Your task to perform on an android device: turn on sleep mode Image 0: 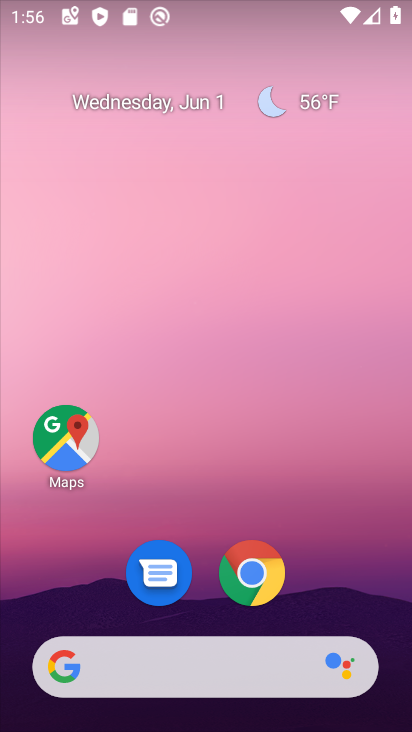
Step 0: drag from (324, 517) to (241, 1)
Your task to perform on an android device: turn on sleep mode Image 1: 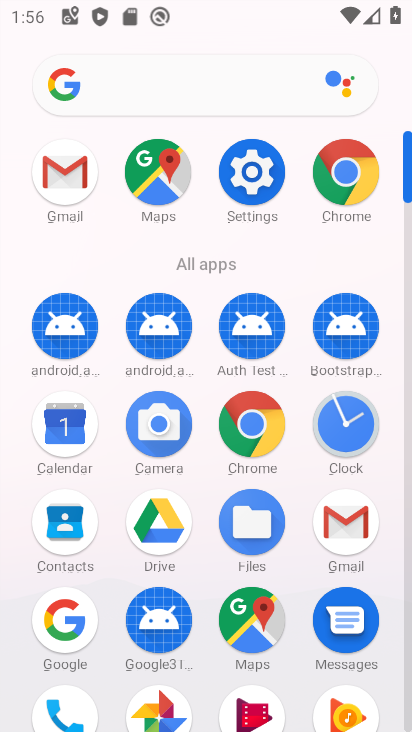
Step 1: click (247, 181)
Your task to perform on an android device: turn on sleep mode Image 2: 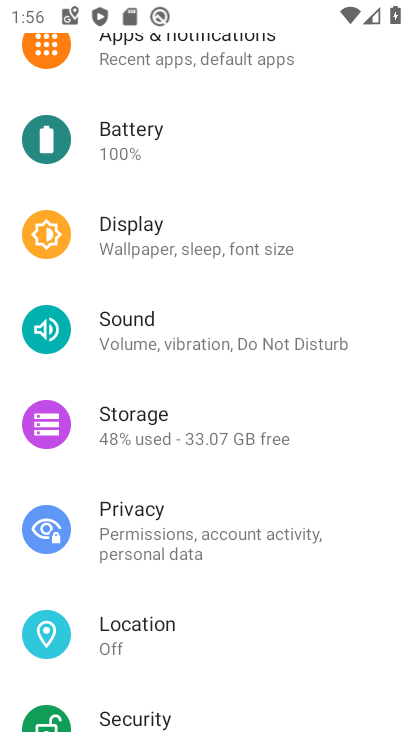
Step 2: click (161, 245)
Your task to perform on an android device: turn on sleep mode Image 3: 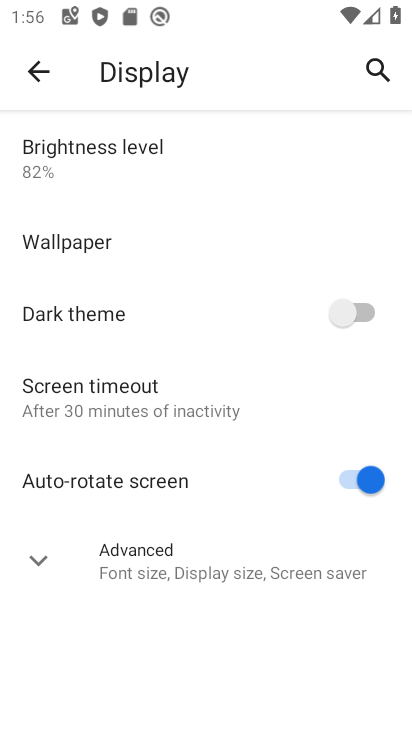
Step 3: click (127, 399)
Your task to perform on an android device: turn on sleep mode Image 4: 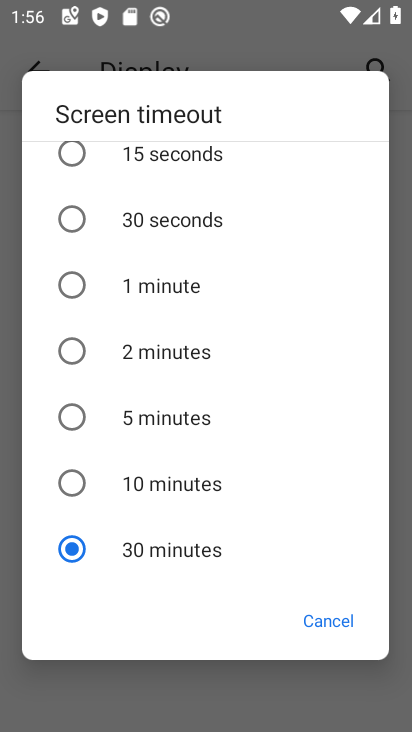
Step 4: task complete